Your task to perform on an android device: change timer sound Image 0: 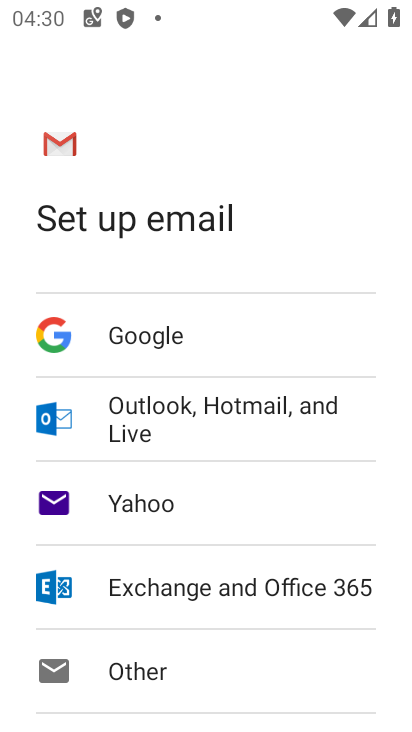
Step 0: press home button
Your task to perform on an android device: change timer sound Image 1: 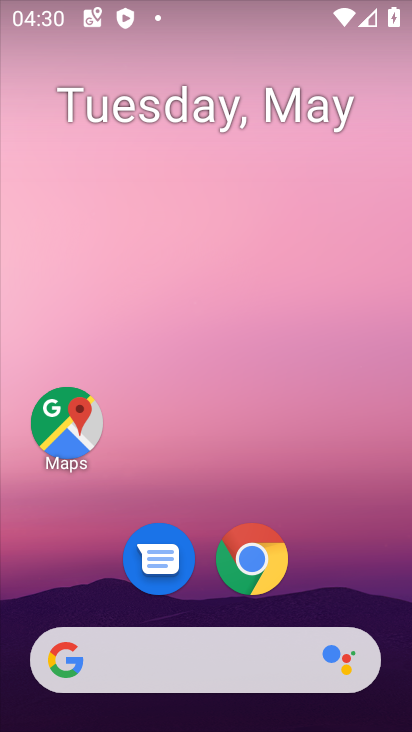
Step 1: drag from (347, 582) to (305, 95)
Your task to perform on an android device: change timer sound Image 2: 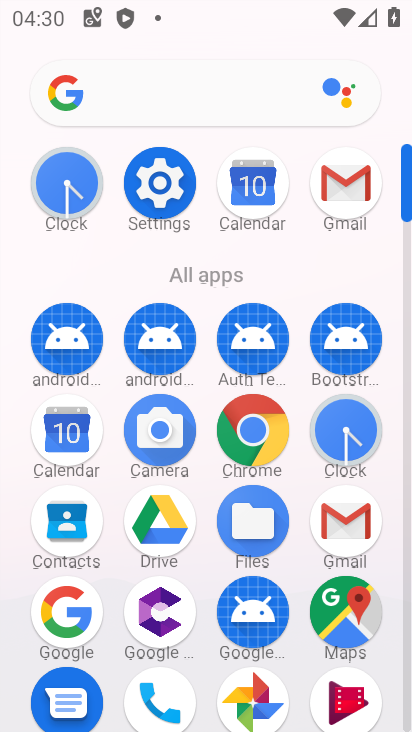
Step 2: drag from (190, 282) to (190, 176)
Your task to perform on an android device: change timer sound Image 3: 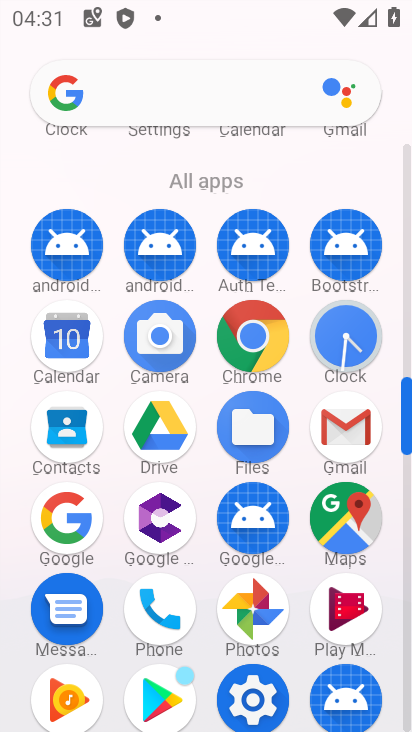
Step 3: click (331, 320)
Your task to perform on an android device: change timer sound Image 4: 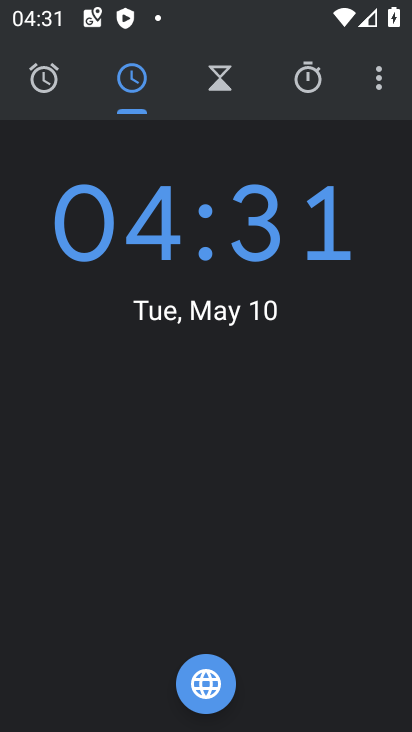
Step 4: click (379, 80)
Your task to perform on an android device: change timer sound Image 5: 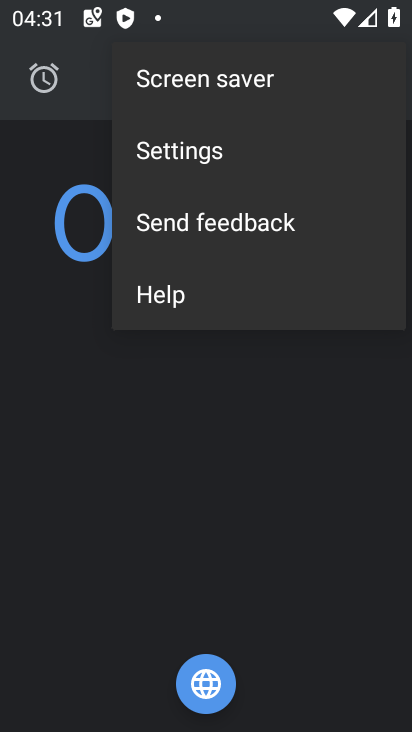
Step 5: click (199, 140)
Your task to perform on an android device: change timer sound Image 6: 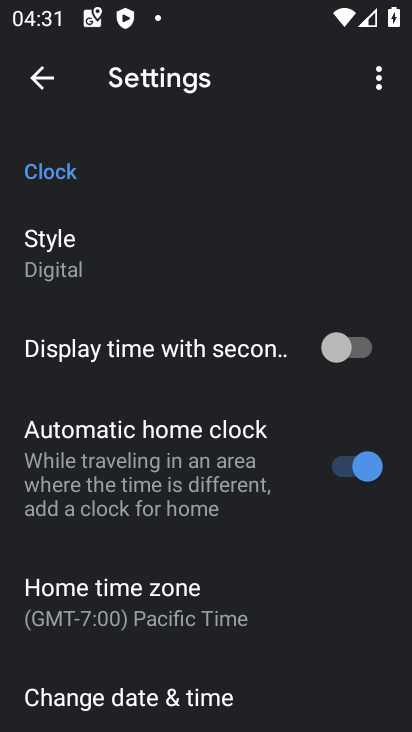
Step 6: drag from (183, 686) to (174, 223)
Your task to perform on an android device: change timer sound Image 7: 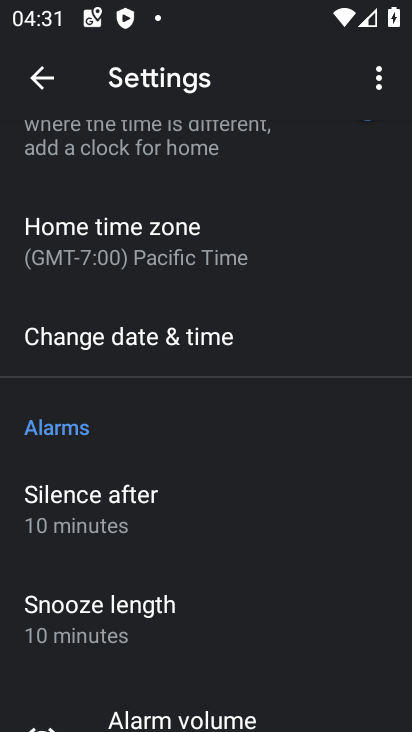
Step 7: drag from (190, 644) to (212, 206)
Your task to perform on an android device: change timer sound Image 8: 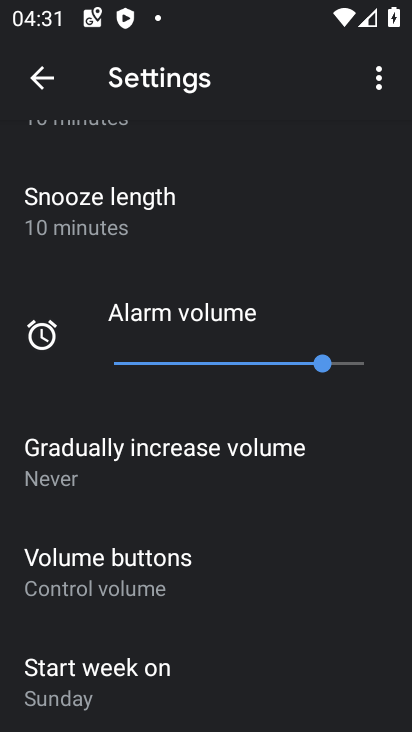
Step 8: drag from (173, 664) to (192, 360)
Your task to perform on an android device: change timer sound Image 9: 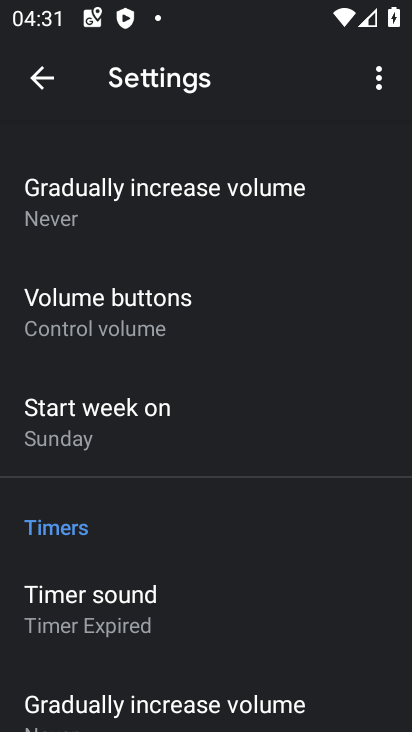
Step 9: click (108, 592)
Your task to perform on an android device: change timer sound Image 10: 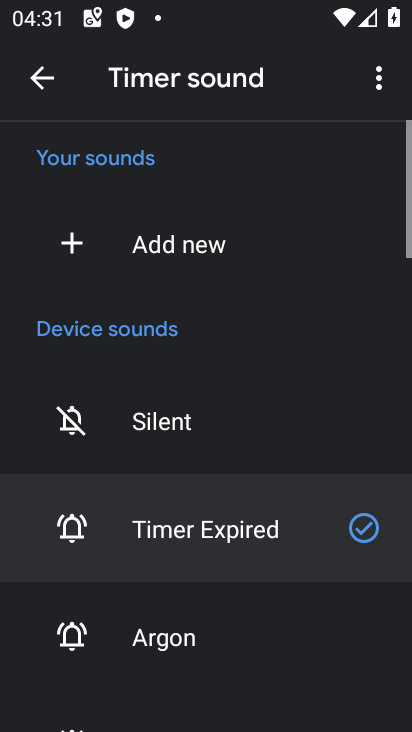
Step 10: click (187, 630)
Your task to perform on an android device: change timer sound Image 11: 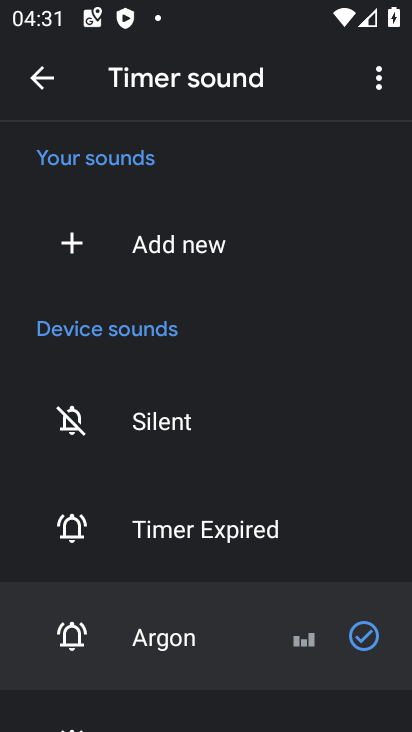
Step 11: task complete